Your task to perform on an android device: What's the weather today? Image 0: 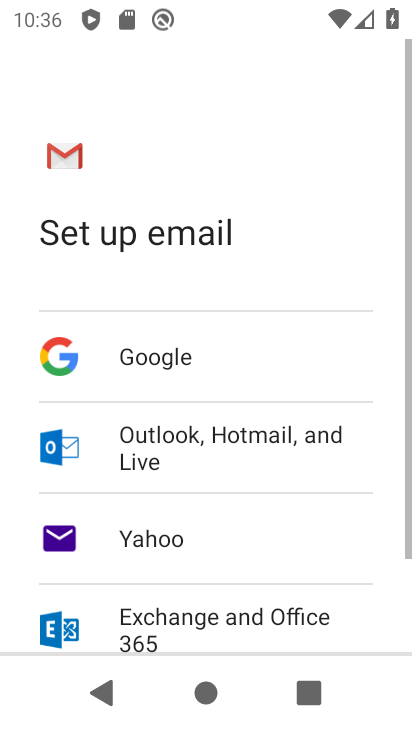
Step 0: press home button
Your task to perform on an android device: What's the weather today? Image 1: 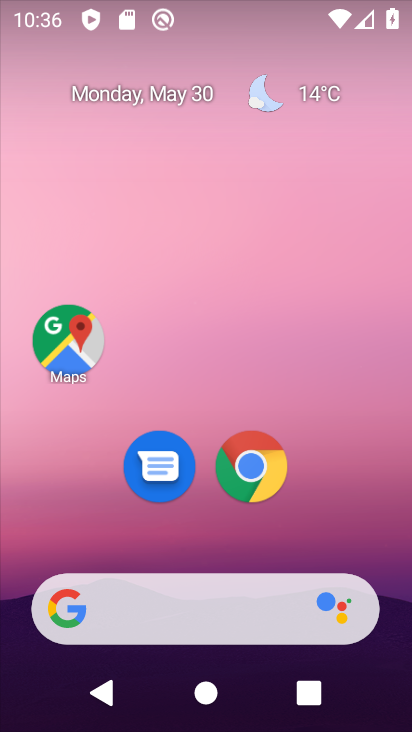
Step 1: click (257, 609)
Your task to perform on an android device: What's the weather today? Image 2: 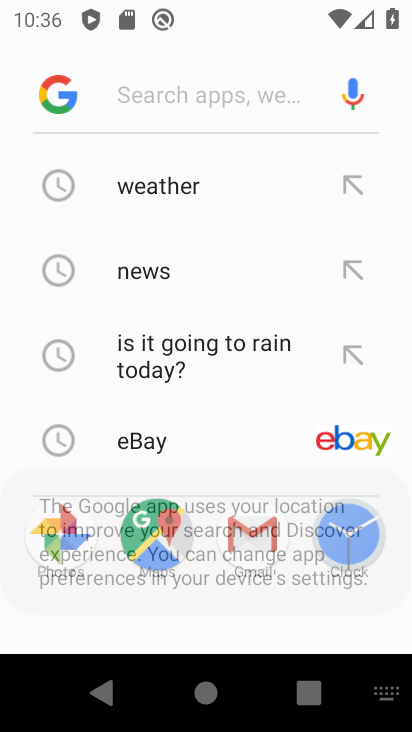
Step 2: click (163, 188)
Your task to perform on an android device: What's the weather today? Image 3: 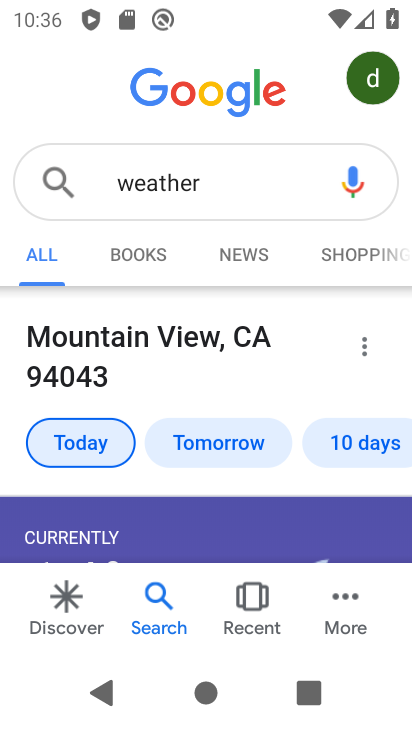
Step 3: task complete